Your task to perform on an android device: Open Maps and search for coffee Image 0: 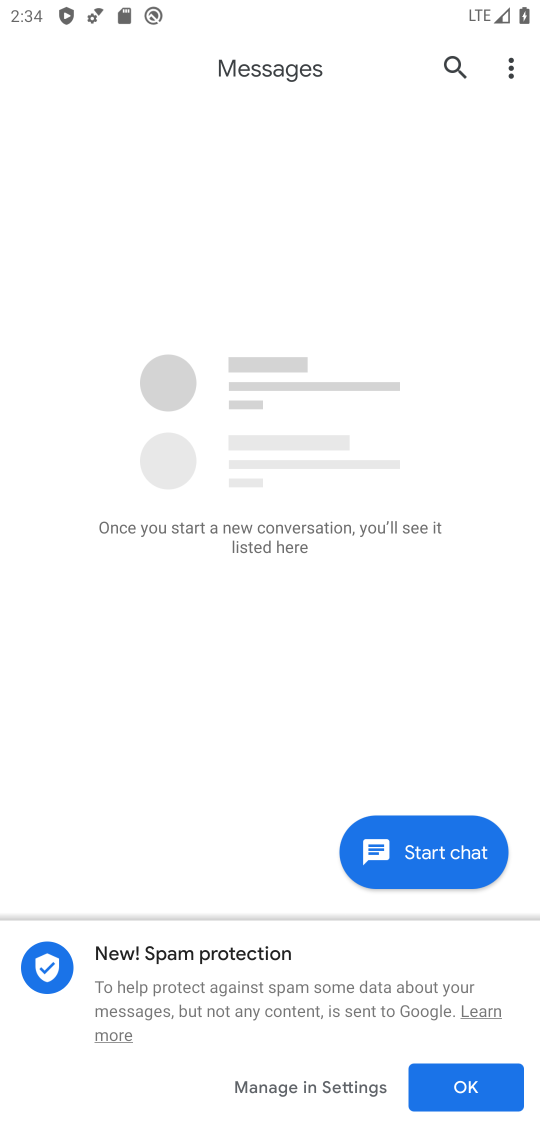
Step 0: press back button
Your task to perform on an android device: Open Maps and search for coffee Image 1: 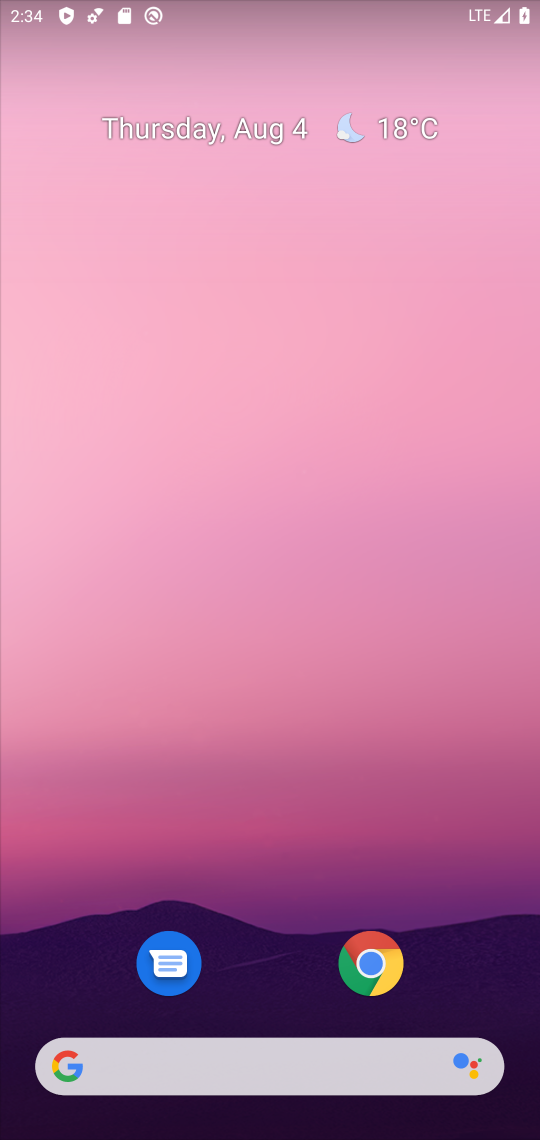
Step 1: drag from (241, 1075) to (184, 267)
Your task to perform on an android device: Open Maps and search for coffee Image 2: 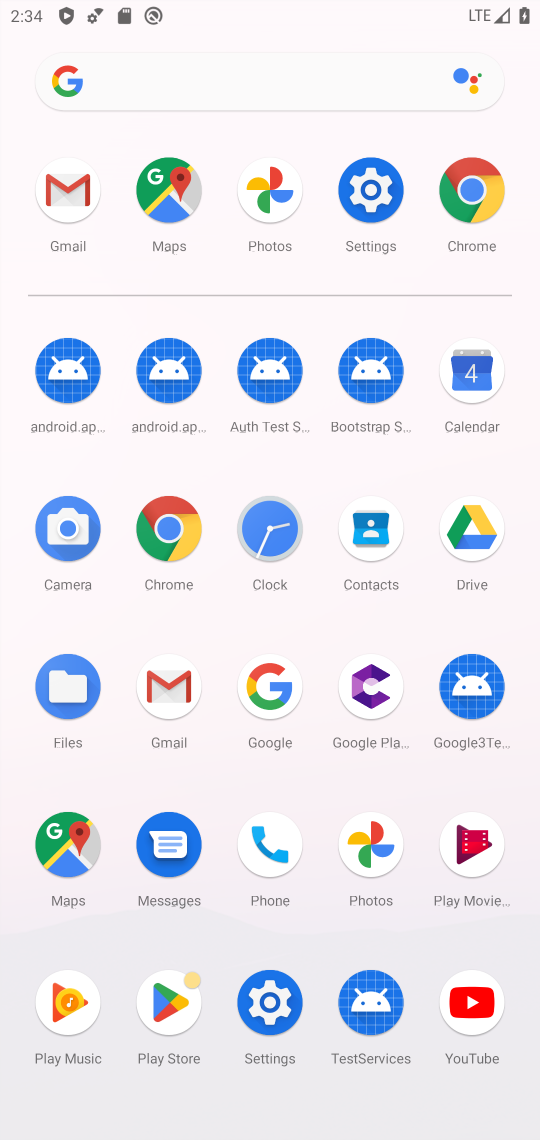
Step 2: click (59, 855)
Your task to perform on an android device: Open Maps and search for coffee Image 3: 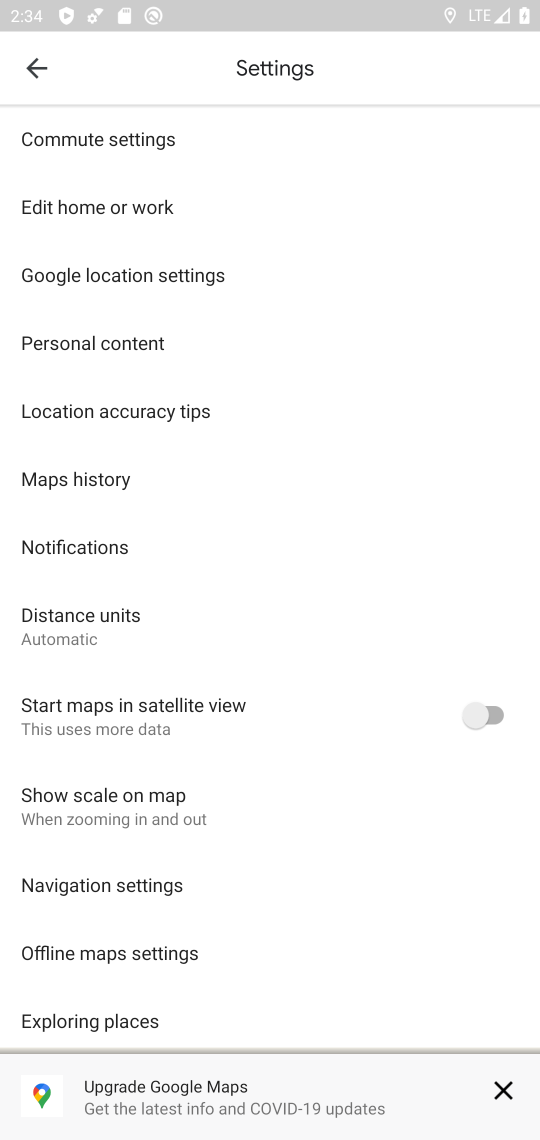
Step 3: click (28, 61)
Your task to perform on an android device: Open Maps and search for coffee Image 4: 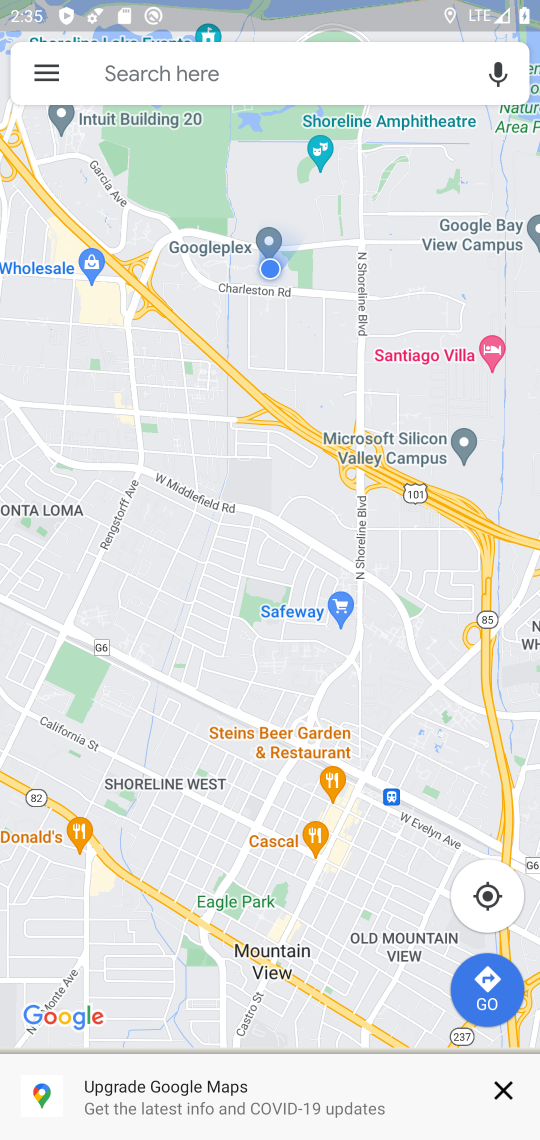
Step 4: click (253, 91)
Your task to perform on an android device: Open Maps and search for coffee Image 5: 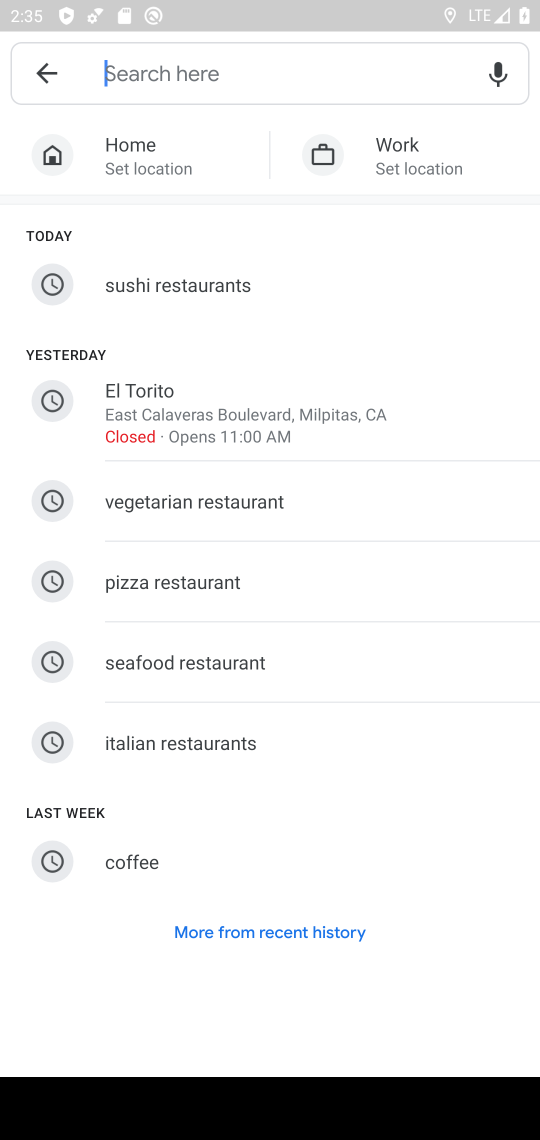
Step 5: type "coffee"
Your task to perform on an android device: Open Maps and search for coffee Image 6: 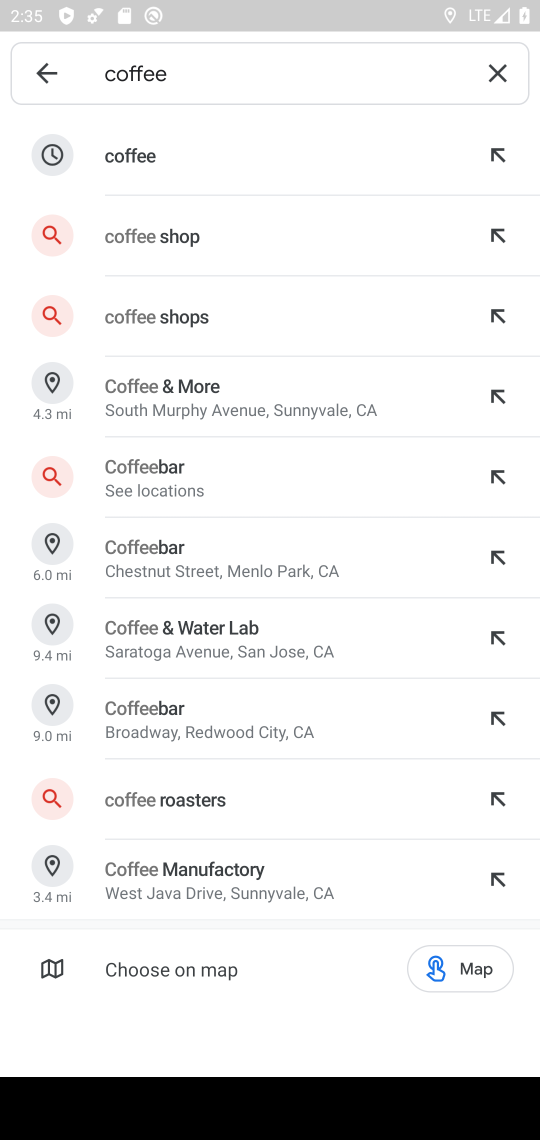
Step 6: click (155, 185)
Your task to perform on an android device: Open Maps and search for coffee Image 7: 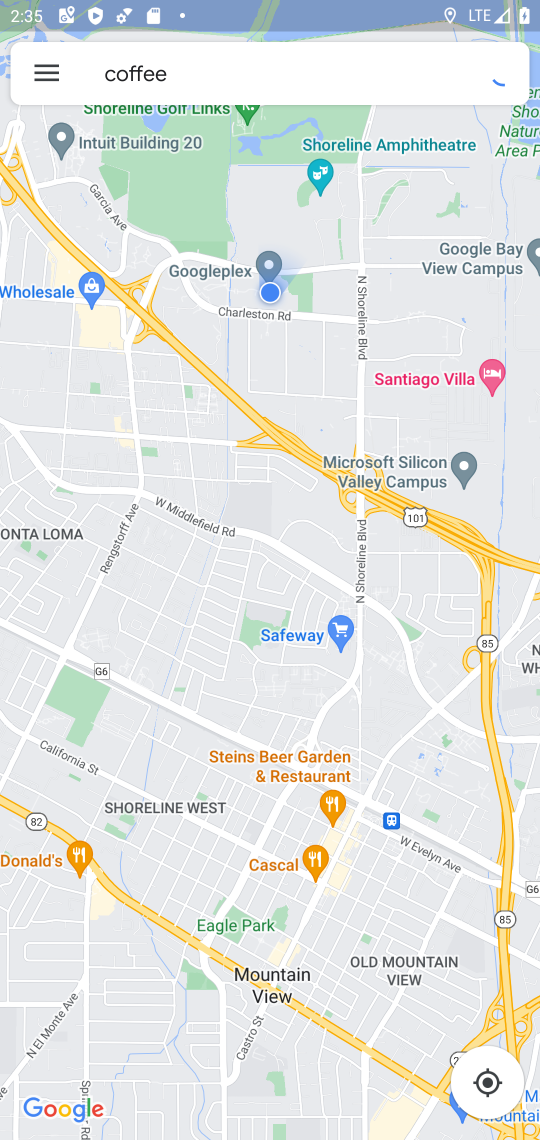
Step 7: task complete